Your task to perform on an android device: check android version Image 0: 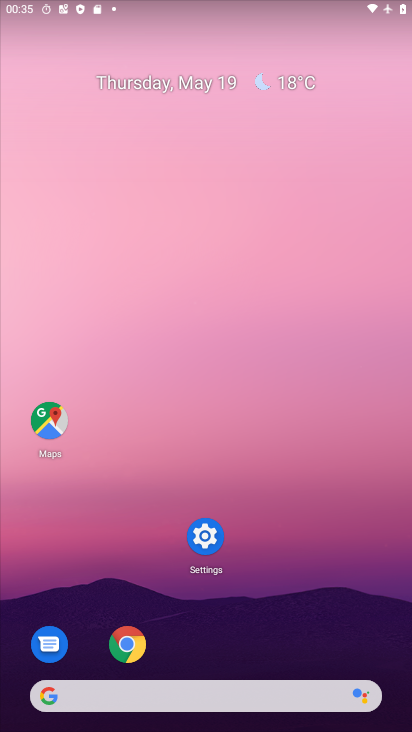
Step 0: drag from (297, 634) to (300, 223)
Your task to perform on an android device: check android version Image 1: 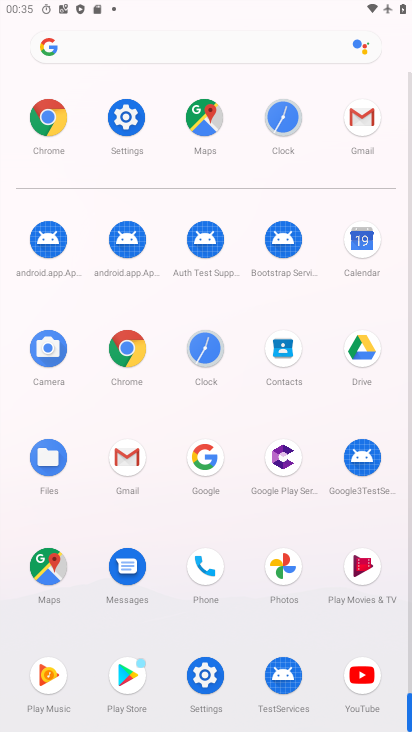
Step 1: click (129, 123)
Your task to perform on an android device: check android version Image 2: 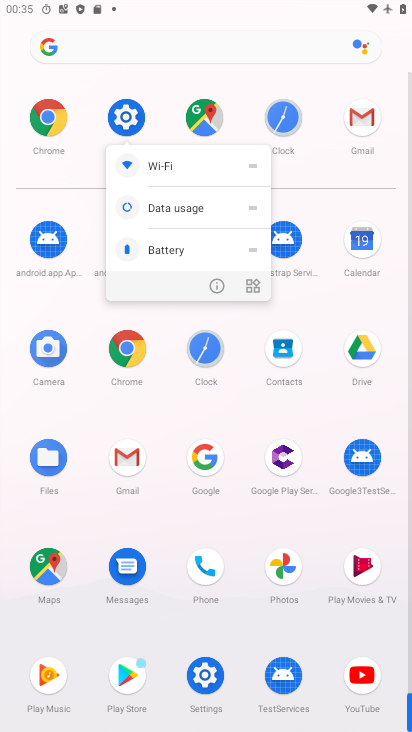
Step 2: click (129, 123)
Your task to perform on an android device: check android version Image 3: 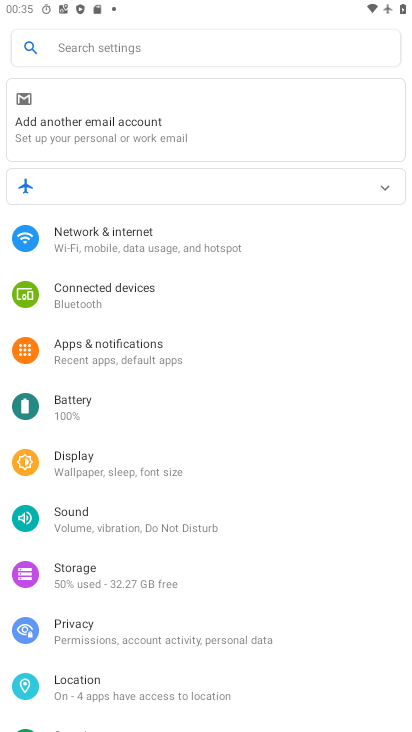
Step 3: drag from (260, 600) to (266, 172)
Your task to perform on an android device: check android version Image 4: 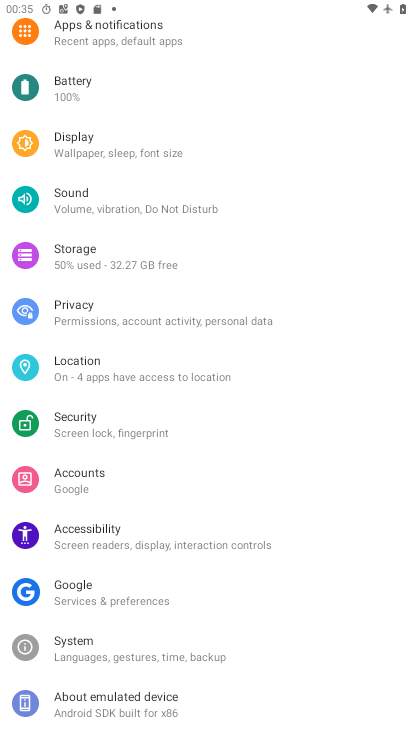
Step 4: drag from (237, 650) to (278, 281)
Your task to perform on an android device: check android version Image 5: 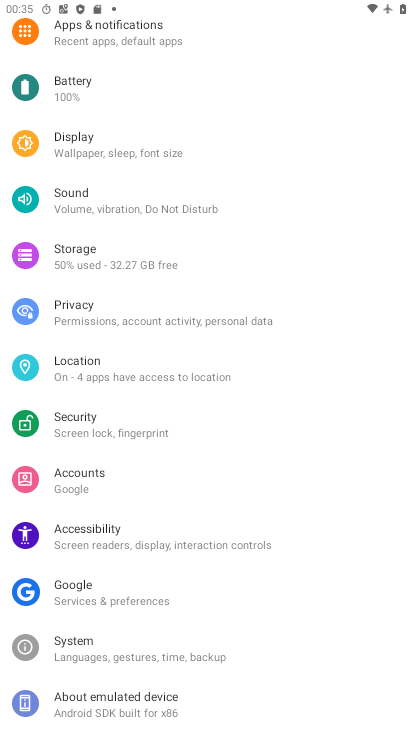
Step 5: click (129, 704)
Your task to perform on an android device: check android version Image 6: 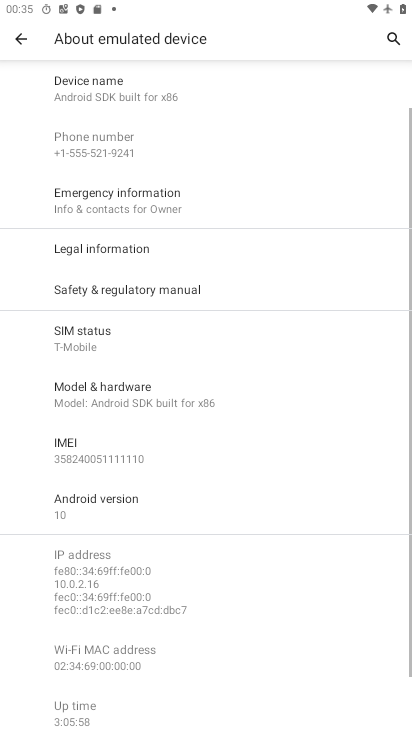
Step 6: drag from (128, 703) to (185, 482)
Your task to perform on an android device: check android version Image 7: 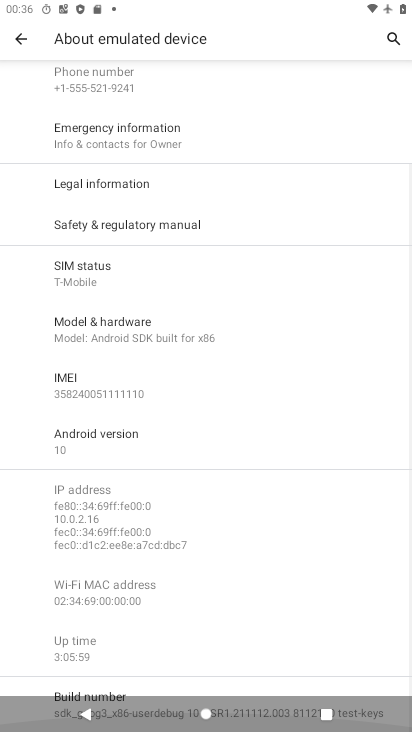
Step 7: click (150, 427)
Your task to perform on an android device: check android version Image 8: 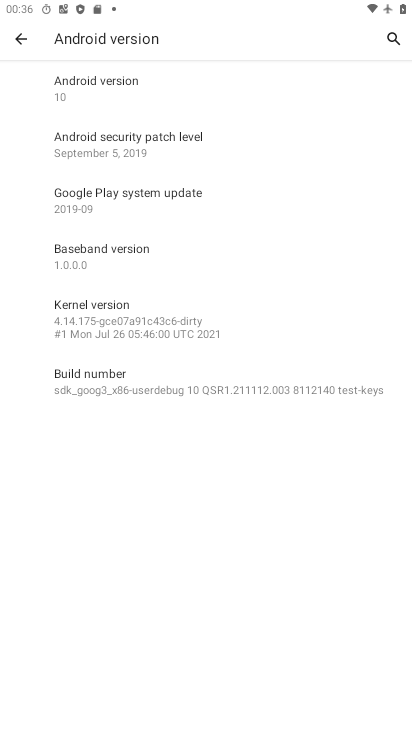
Step 8: task complete